Your task to perform on an android device: clear all cookies in the chrome app Image 0: 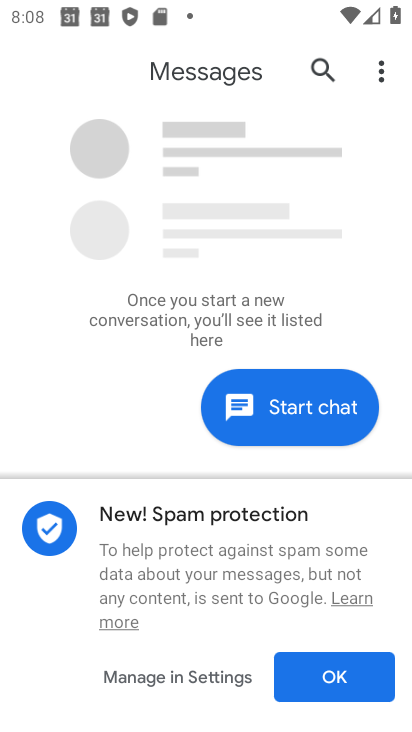
Step 0: press home button
Your task to perform on an android device: clear all cookies in the chrome app Image 1: 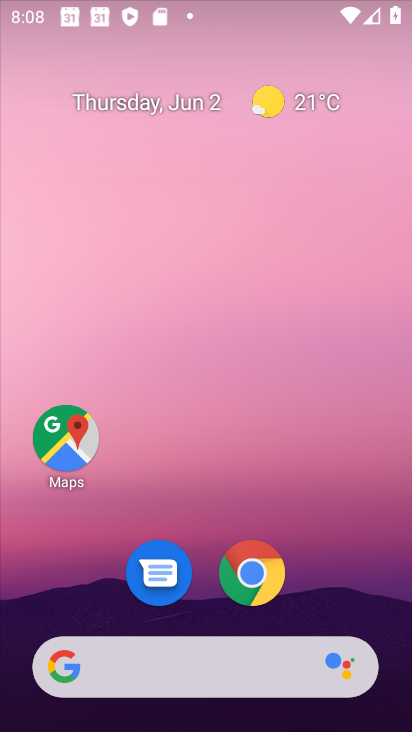
Step 1: click (258, 572)
Your task to perform on an android device: clear all cookies in the chrome app Image 2: 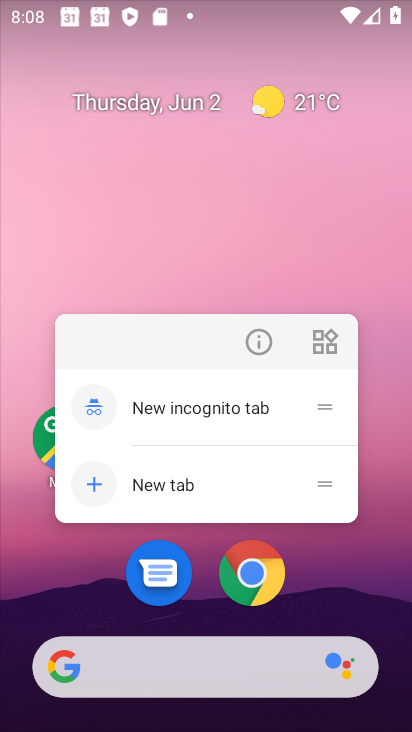
Step 2: click (243, 581)
Your task to perform on an android device: clear all cookies in the chrome app Image 3: 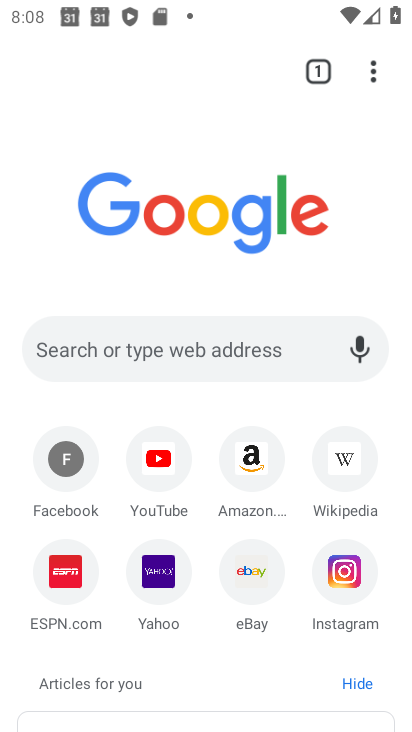
Step 3: click (372, 73)
Your task to perform on an android device: clear all cookies in the chrome app Image 4: 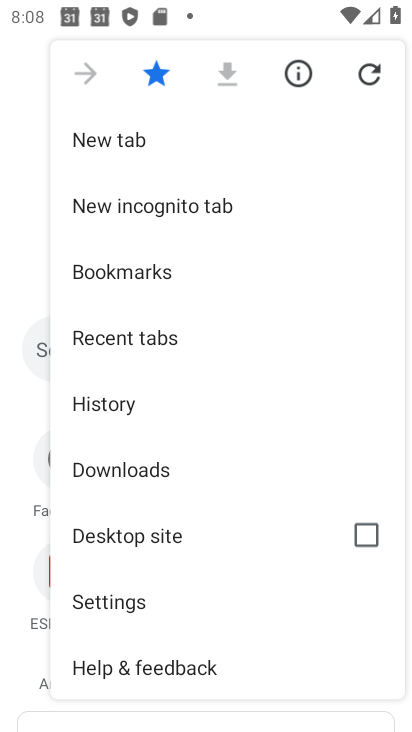
Step 4: click (67, 609)
Your task to perform on an android device: clear all cookies in the chrome app Image 5: 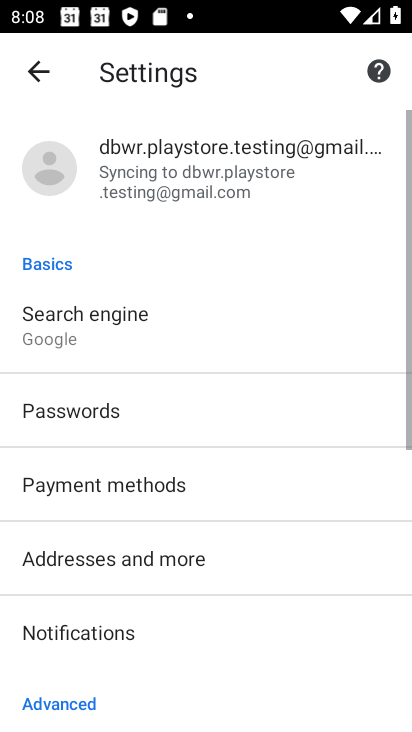
Step 5: drag from (122, 651) to (82, 333)
Your task to perform on an android device: clear all cookies in the chrome app Image 6: 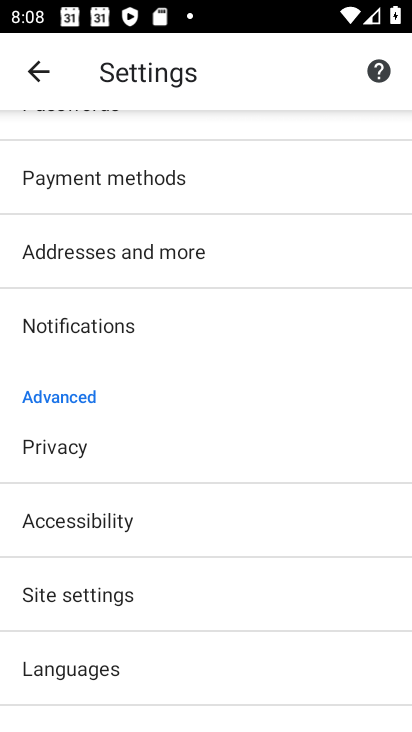
Step 6: click (29, 442)
Your task to perform on an android device: clear all cookies in the chrome app Image 7: 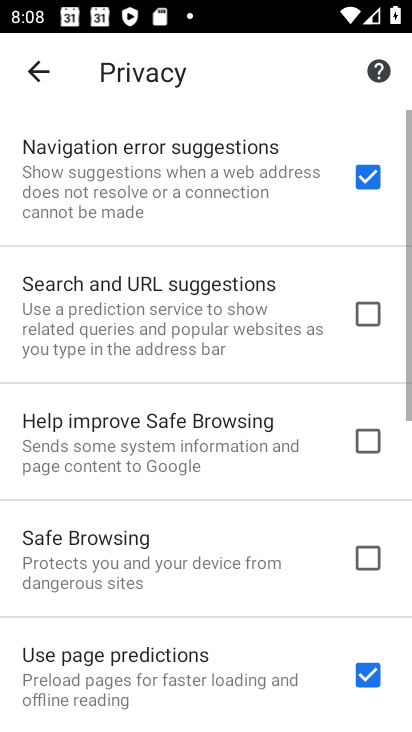
Step 7: drag from (210, 625) to (166, 28)
Your task to perform on an android device: clear all cookies in the chrome app Image 8: 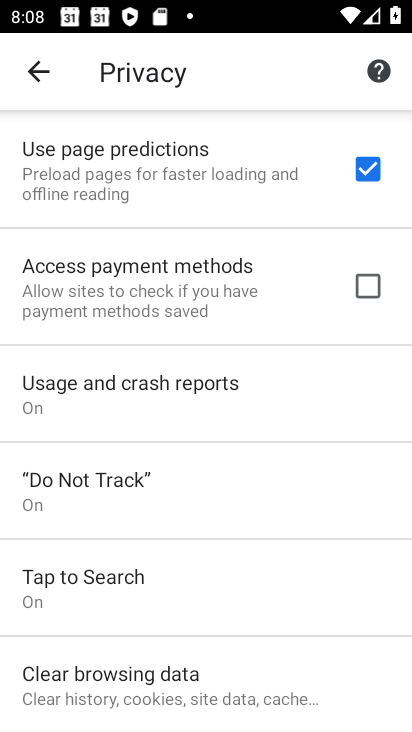
Step 8: click (121, 679)
Your task to perform on an android device: clear all cookies in the chrome app Image 9: 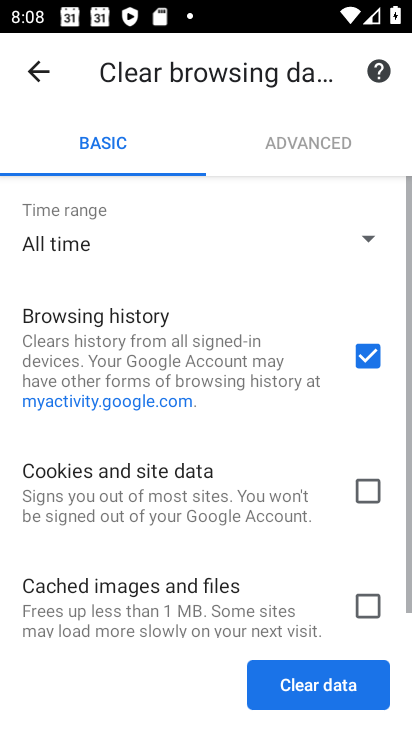
Step 9: click (366, 492)
Your task to perform on an android device: clear all cookies in the chrome app Image 10: 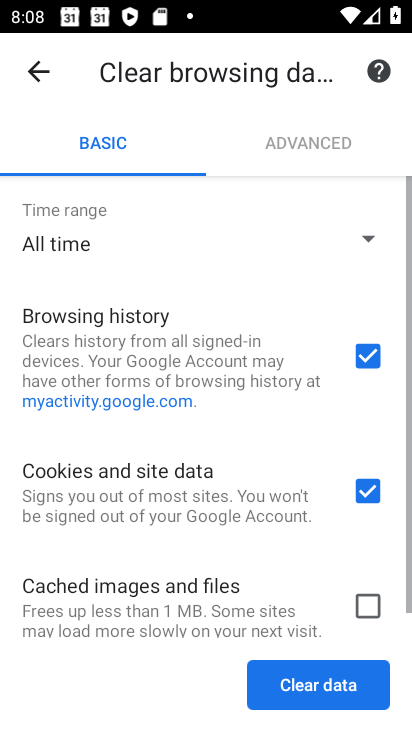
Step 10: click (364, 364)
Your task to perform on an android device: clear all cookies in the chrome app Image 11: 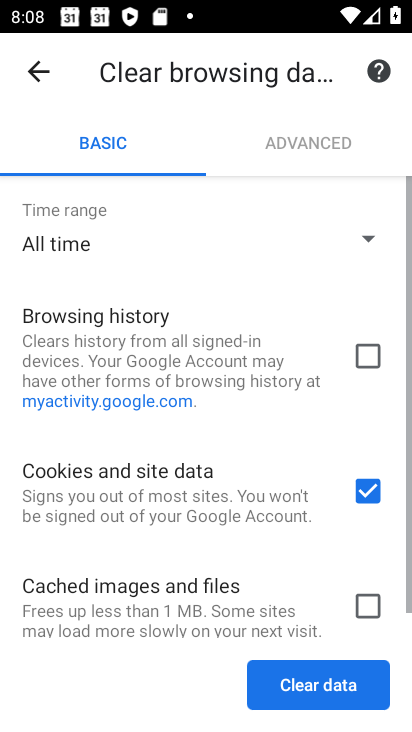
Step 11: click (280, 682)
Your task to perform on an android device: clear all cookies in the chrome app Image 12: 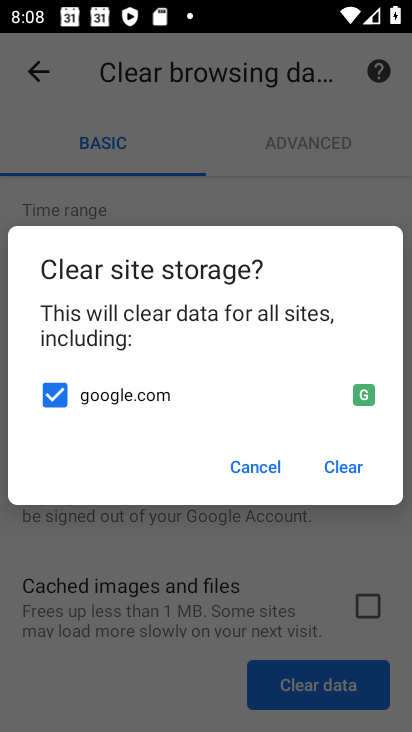
Step 12: click (345, 466)
Your task to perform on an android device: clear all cookies in the chrome app Image 13: 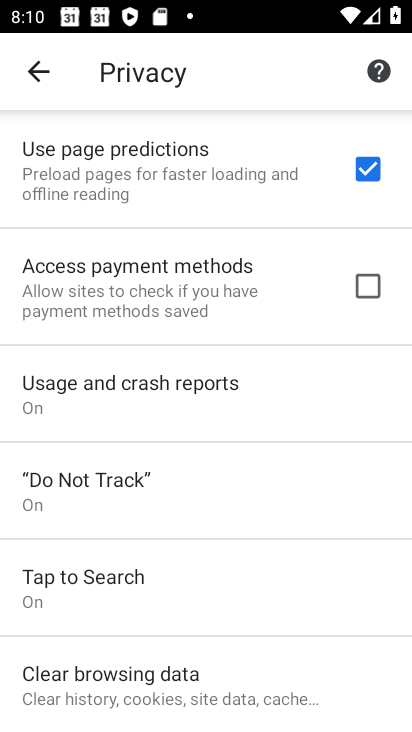
Step 13: task complete